Your task to perform on an android device: Check the weather Image 0: 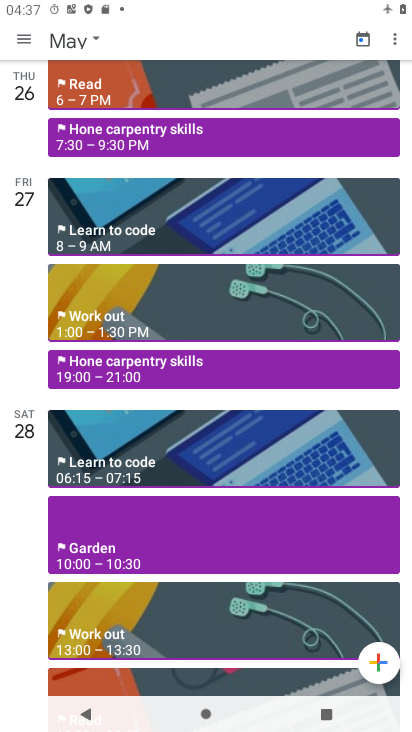
Step 0: press home button
Your task to perform on an android device: Check the weather Image 1: 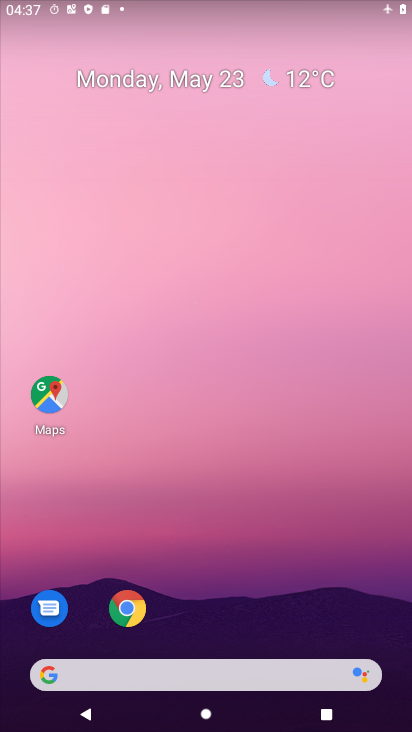
Step 1: drag from (299, 577) to (277, 706)
Your task to perform on an android device: Check the weather Image 2: 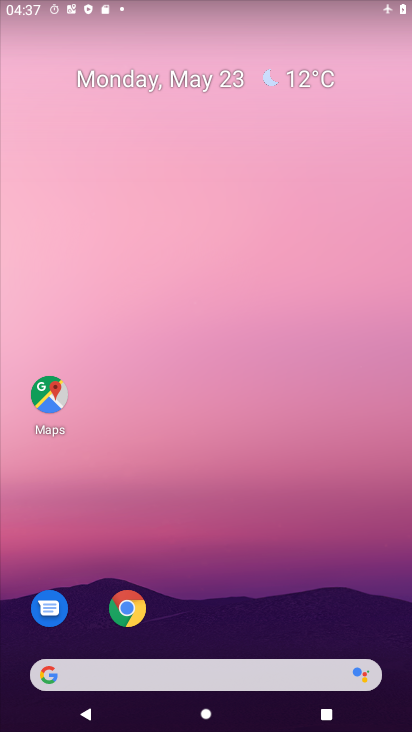
Step 2: click (301, 79)
Your task to perform on an android device: Check the weather Image 3: 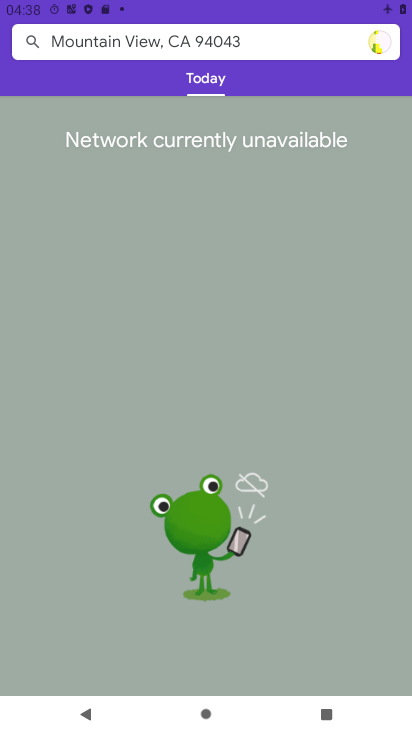
Step 3: task complete